Your task to perform on an android device: see sites visited before in the chrome app Image 0: 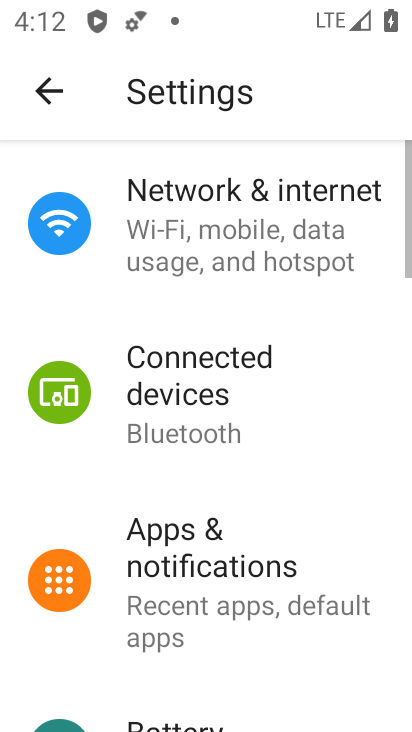
Step 0: press home button
Your task to perform on an android device: see sites visited before in the chrome app Image 1: 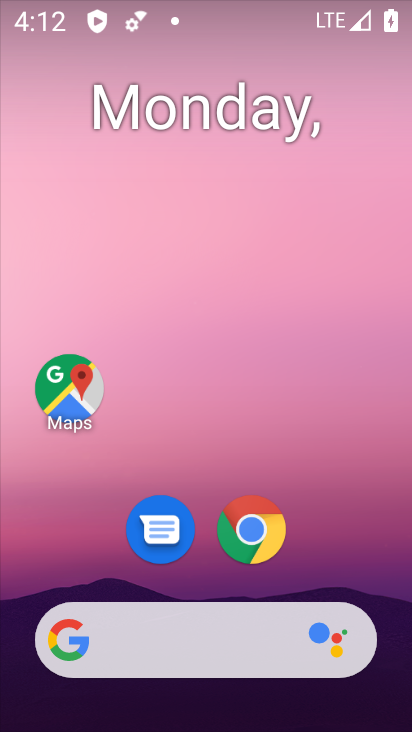
Step 1: click (261, 522)
Your task to perform on an android device: see sites visited before in the chrome app Image 2: 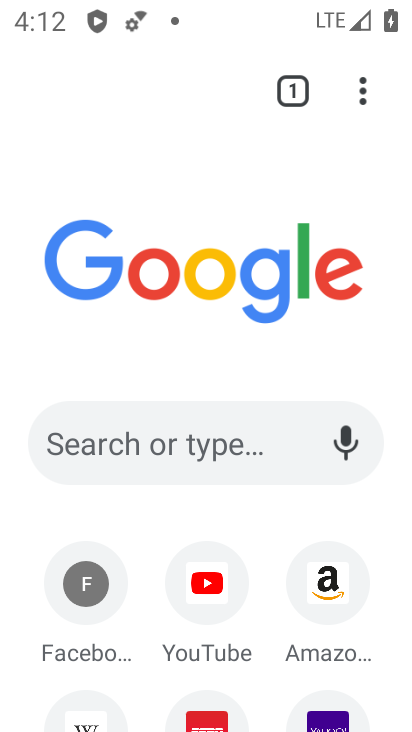
Step 2: click (367, 102)
Your task to perform on an android device: see sites visited before in the chrome app Image 3: 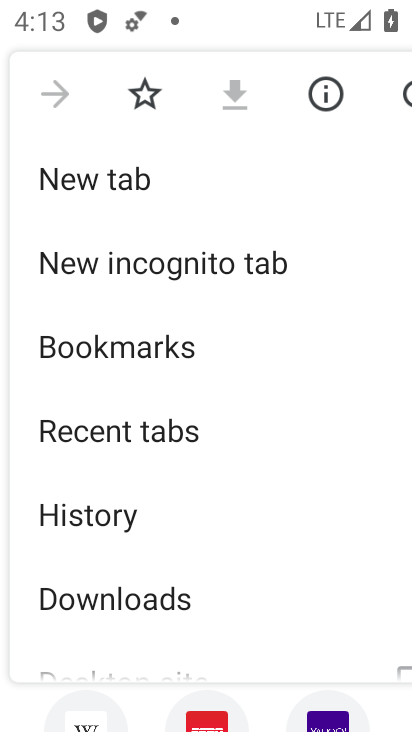
Step 3: click (82, 522)
Your task to perform on an android device: see sites visited before in the chrome app Image 4: 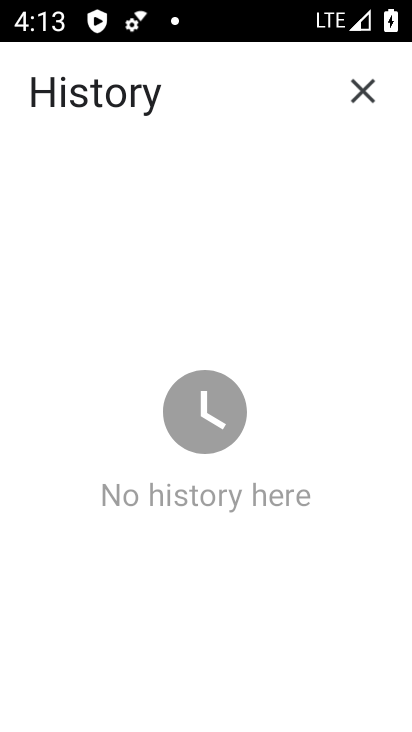
Step 4: task complete